Your task to perform on an android device: Open the stopwatch Image 0: 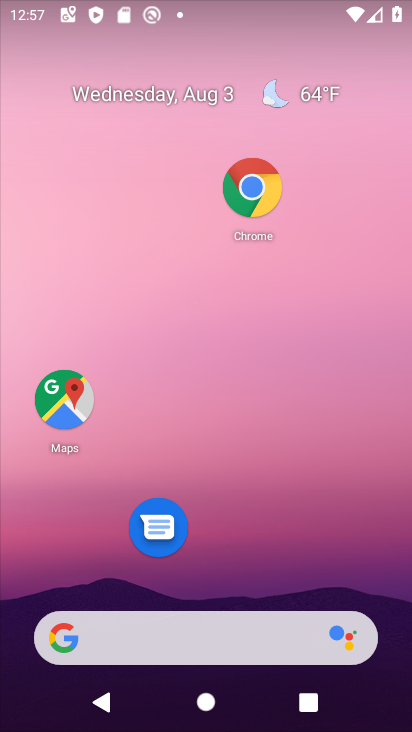
Step 0: drag from (224, 551) to (237, 68)
Your task to perform on an android device: Open the stopwatch Image 1: 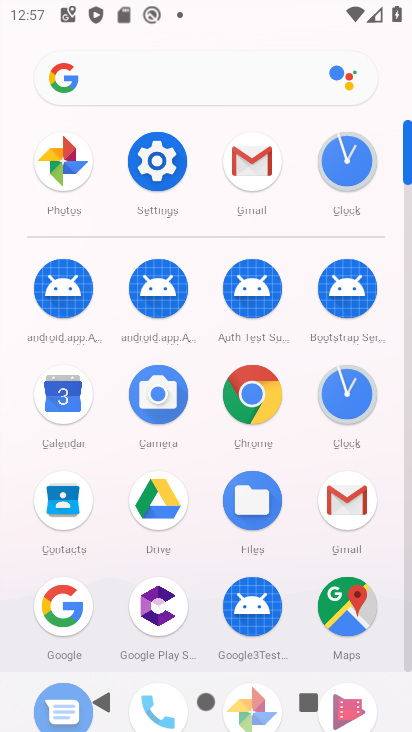
Step 1: click (342, 404)
Your task to perform on an android device: Open the stopwatch Image 2: 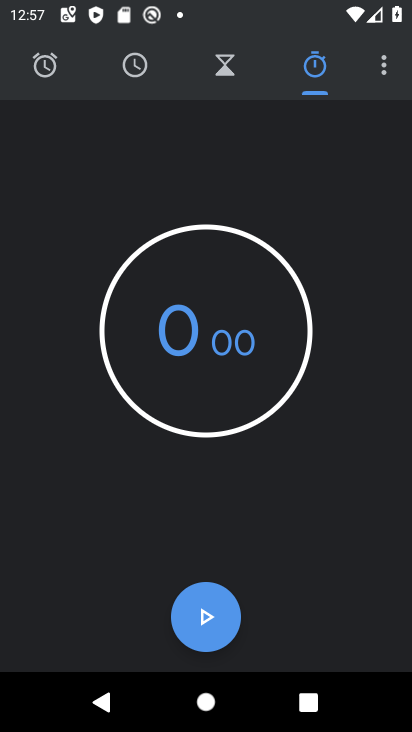
Step 2: click (192, 596)
Your task to perform on an android device: Open the stopwatch Image 3: 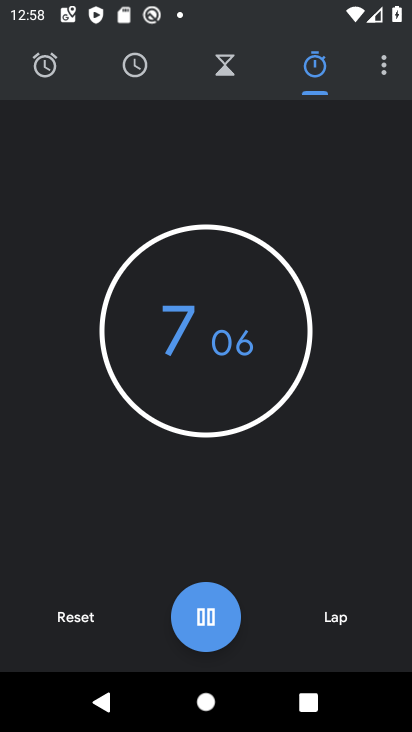
Step 3: task complete